Your task to perform on an android device: find snoozed emails in the gmail app Image 0: 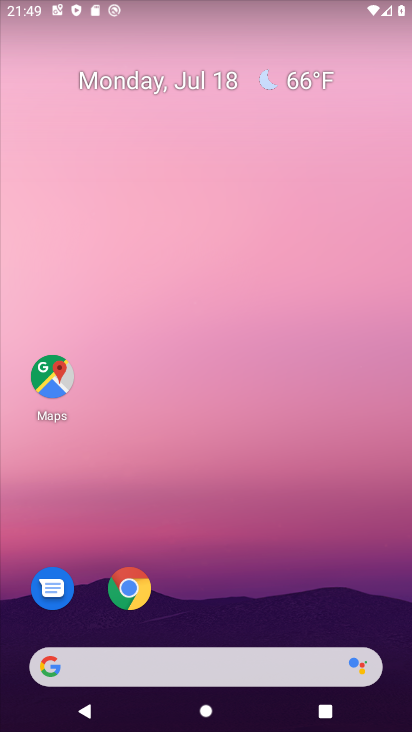
Step 0: press home button
Your task to perform on an android device: find snoozed emails in the gmail app Image 1: 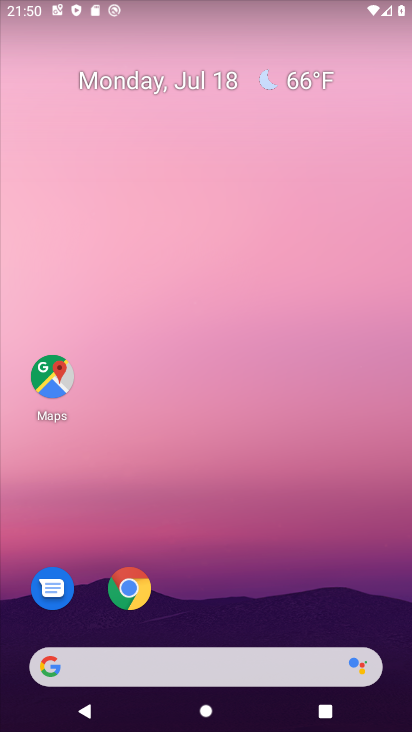
Step 1: drag from (144, 673) to (278, 91)
Your task to perform on an android device: find snoozed emails in the gmail app Image 2: 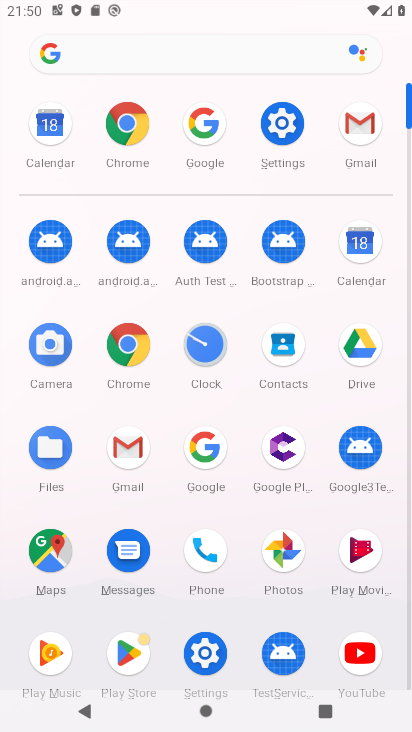
Step 2: click (359, 125)
Your task to perform on an android device: find snoozed emails in the gmail app Image 3: 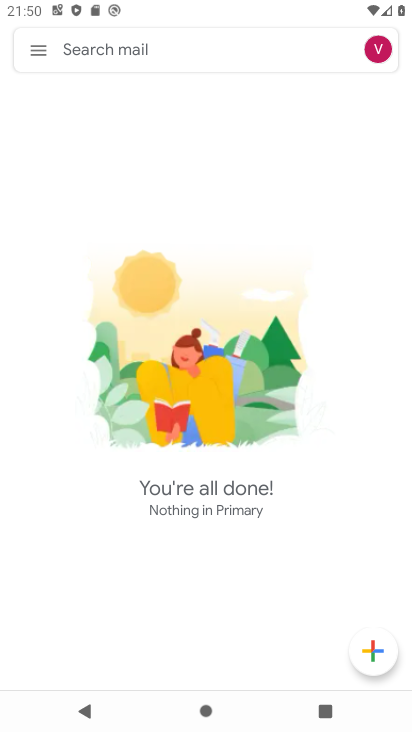
Step 3: click (35, 43)
Your task to perform on an android device: find snoozed emails in the gmail app Image 4: 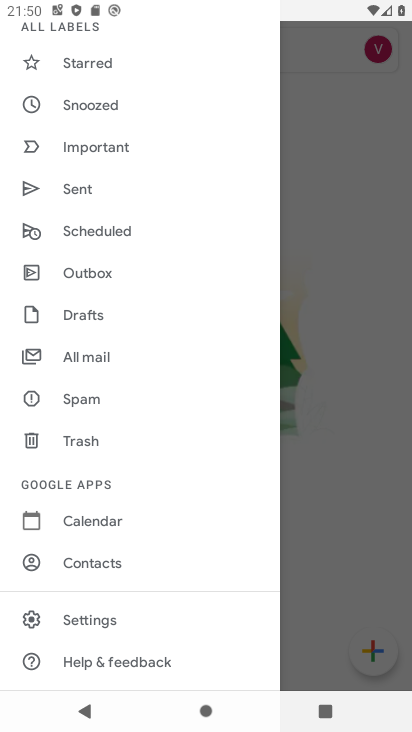
Step 4: click (104, 108)
Your task to perform on an android device: find snoozed emails in the gmail app Image 5: 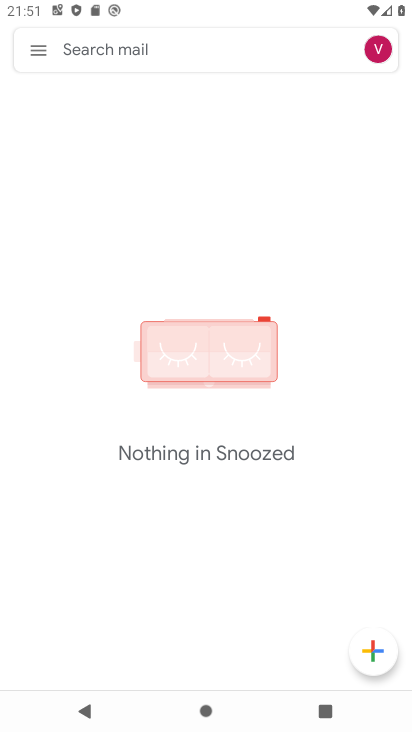
Step 5: task complete